Your task to perform on an android device: Open Maps and search for coffee Image 0: 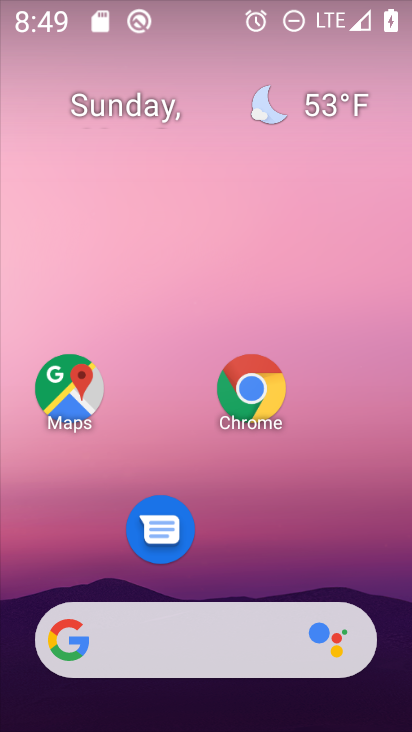
Step 0: click (86, 404)
Your task to perform on an android device: Open Maps and search for coffee Image 1: 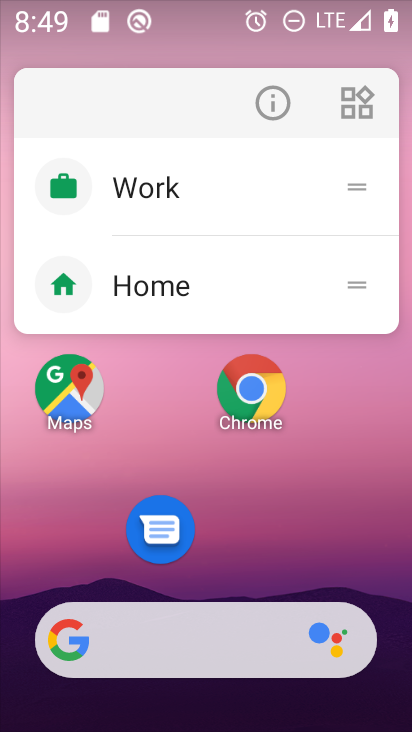
Step 1: click (63, 403)
Your task to perform on an android device: Open Maps and search for coffee Image 2: 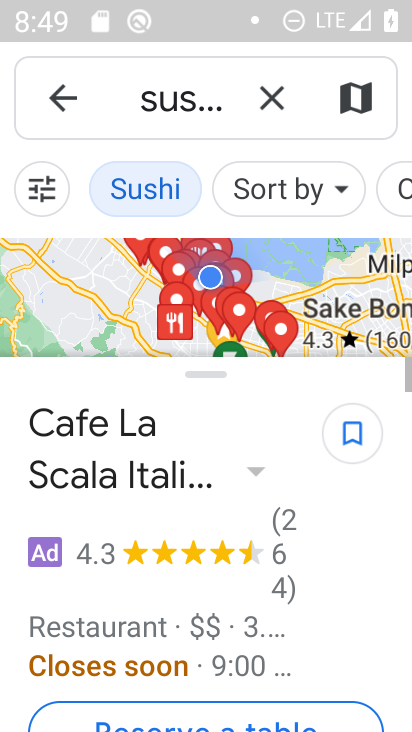
Step 2: click (269, 100)
Your task to perform on an android device: Open Maps and search for coffee Image 3: 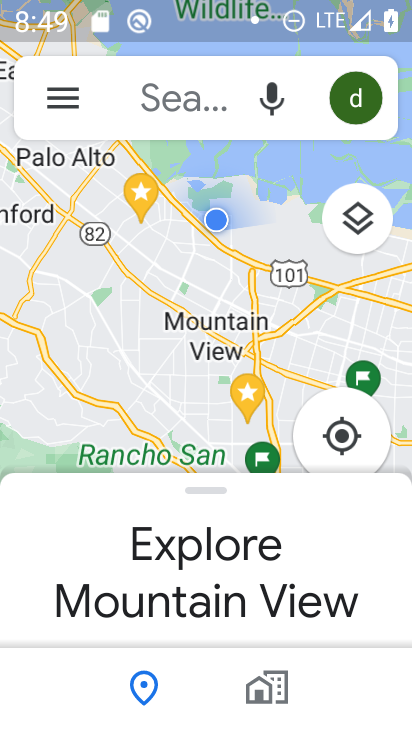
Step 3: click (159, 116)
Your task to perform on an android device: Open Maps and search for coffee Image 4: 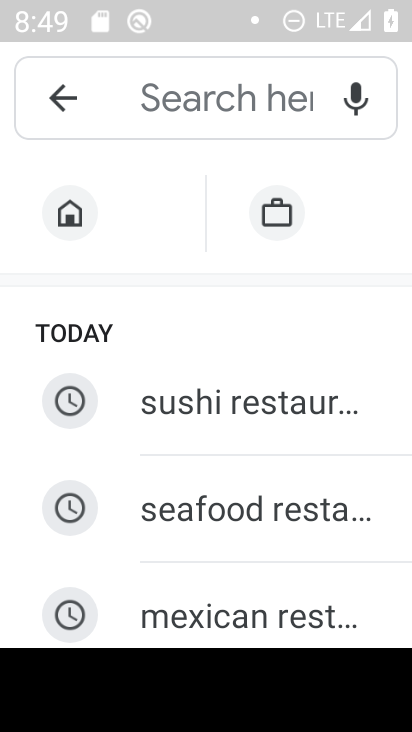
Step 4: type "coffee"
Your task to perform on an android device: Open Maps and search for coffee Image 5: 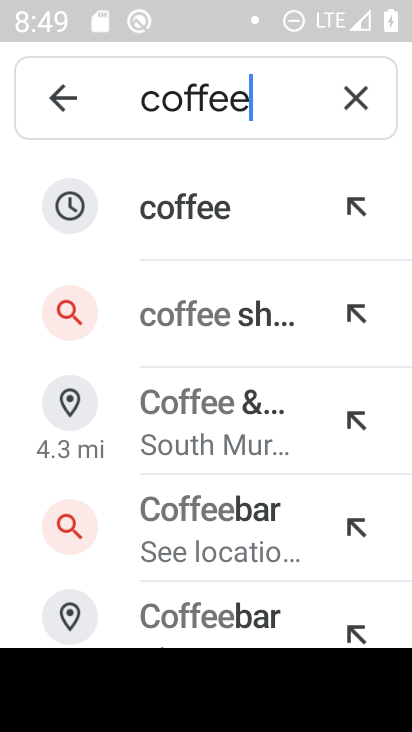
Step 5: click (218, 235)
Your task to perform on an android device: Open Maps and search for coffee Image 6: 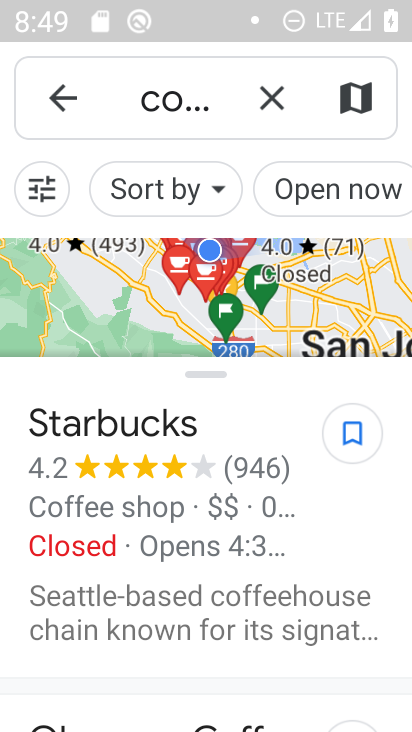
Step 6: task complete